Your task to perform on an android device: toggle notifications settings in the gmail app Image 0: 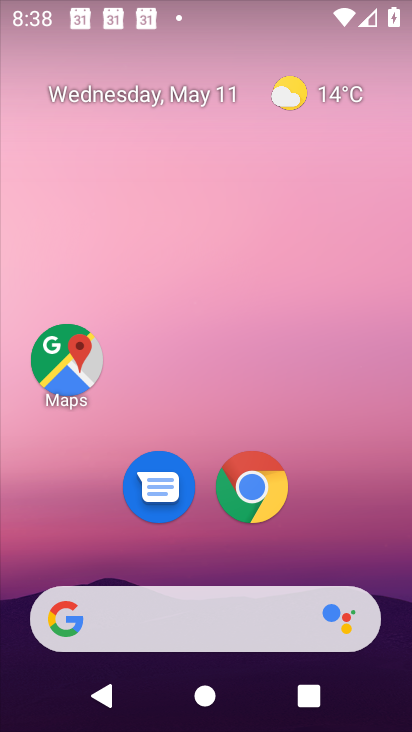
Step 0: drag from (215, 725) to (215, 162)
Your task to perform on an android device: toggle notifications settings in the gmail app Image 1: 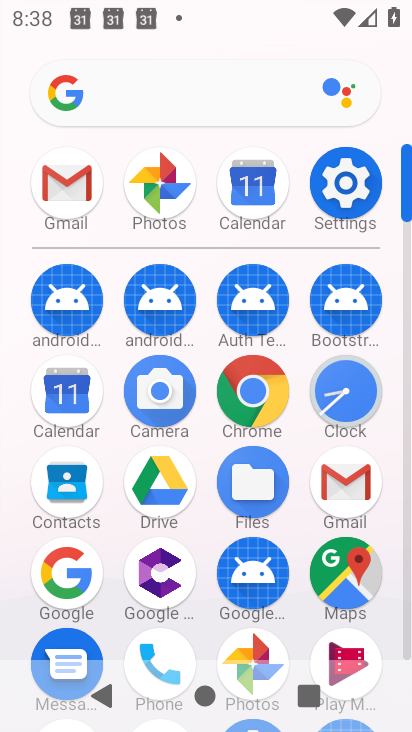
Step 1: click (346, 491)
Your task to perform on an android device: toggle notifications settings in the gmail app Image 2: 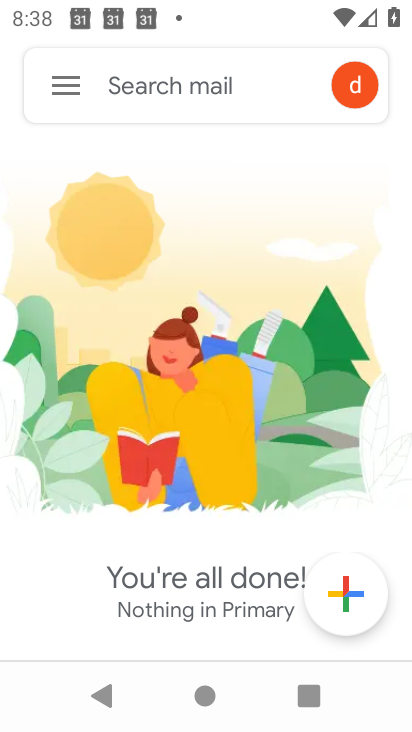
Step 2: click (55, 80)
Your task to perform on an android device: toggle notifications settings in the gmail app Image 3: 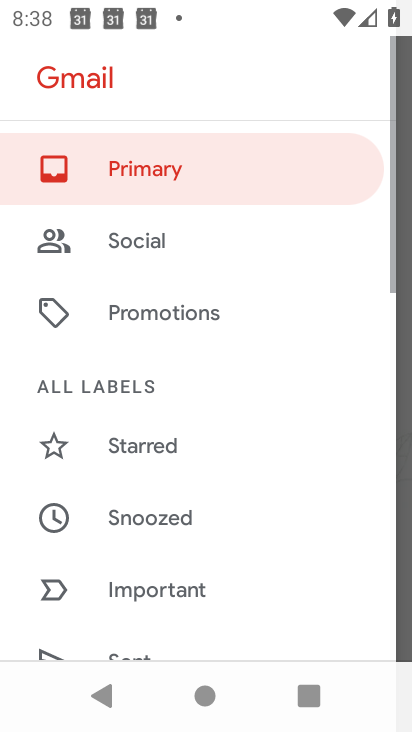
Step 3: drag from (186, 631) to (186, 191)
Your task to perform on an android device: toggle notifications settings in the gmail app Image 4: 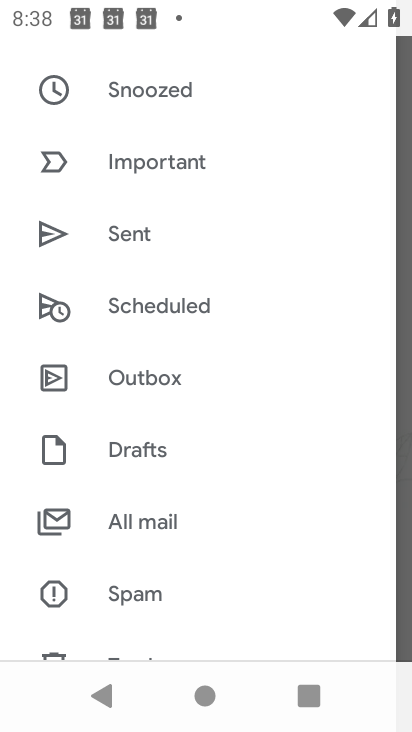
Step 4: drag from (168, 638) to (176, 230)
Your task to perform on an android device: toggle notifications settings in the gmail app Image 5: 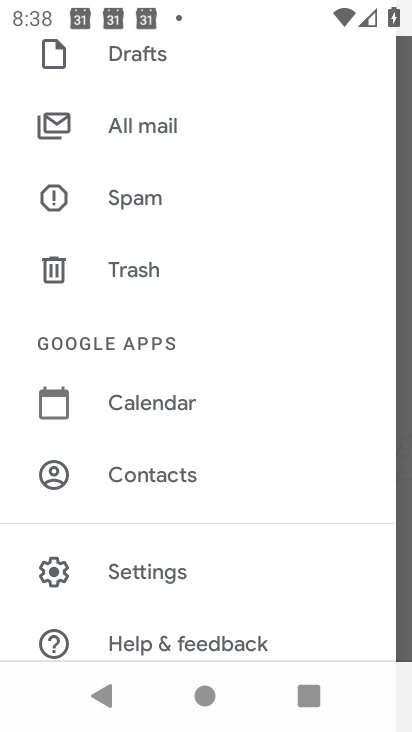
Step 5: click (168, 571)
Your task to perform on an android device: toggle notifications settings in the gmail app Image 6: 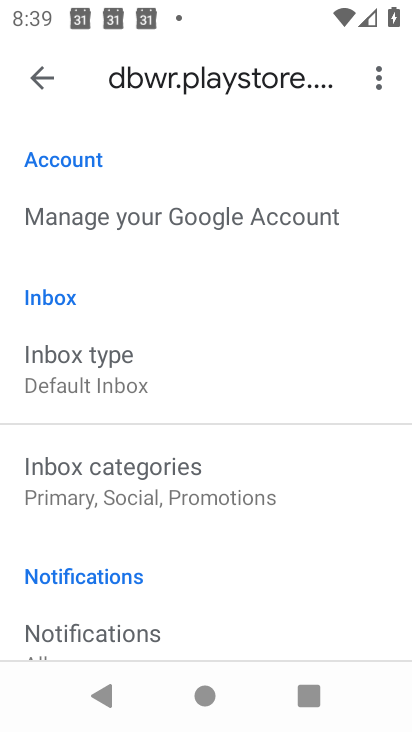
Step 6: drag from (206, 631) to (205, 253)
Your task to perform on an android device: toggle notifications settings in the gmail app Image 7: 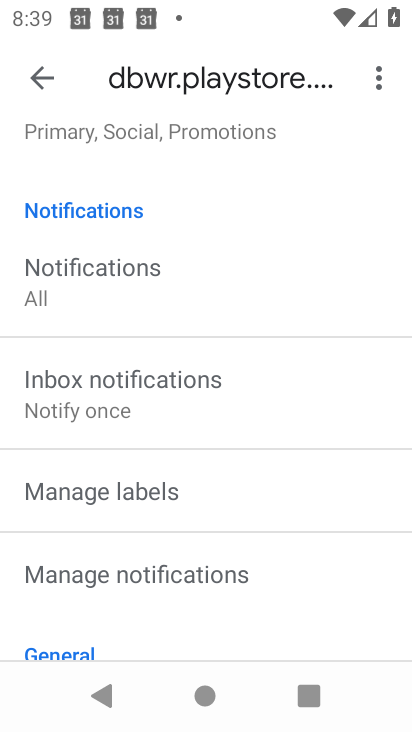
Step 7: click (106, 387)
Your task to perform on an android device: toggle notifications settings in the gmail app Image 8: 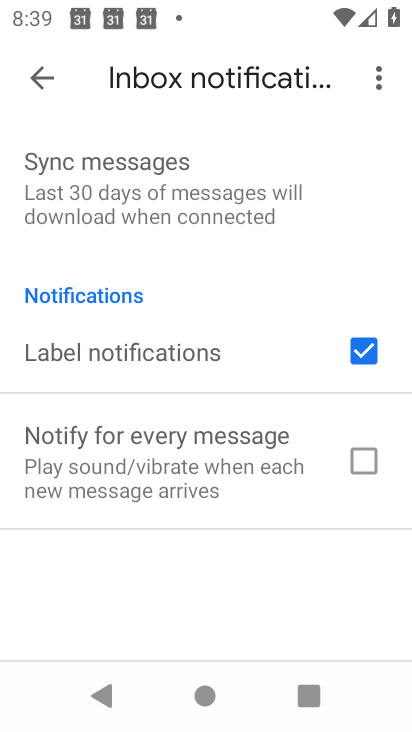
Step 8: click (370, 460)
Your task to perform on an android device: toggle notifications settings in the gmail app Image 9: 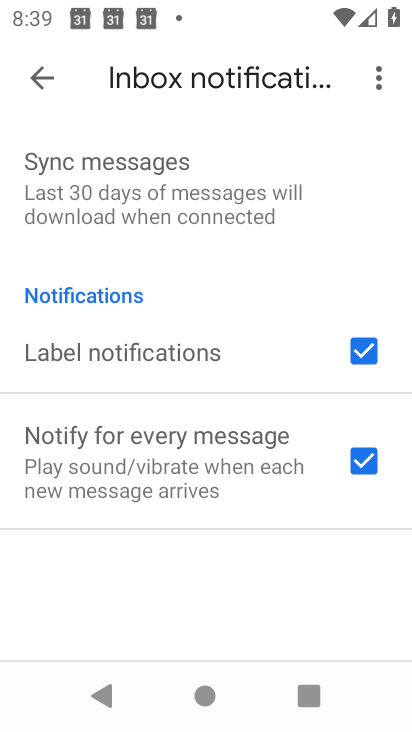
Step 9: task complete